Your task to perform on an android device: change the clock display to analog Image 0: 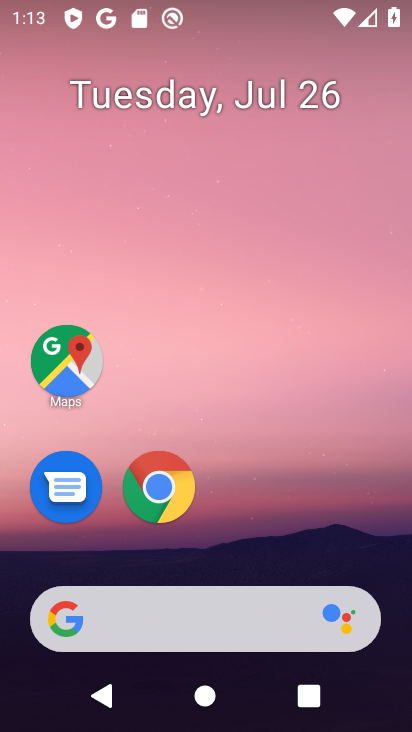
Step 0: drag from (173, 648) to (208, 133)
Your task to perform on an android device: change the clock display to analog Image 1: 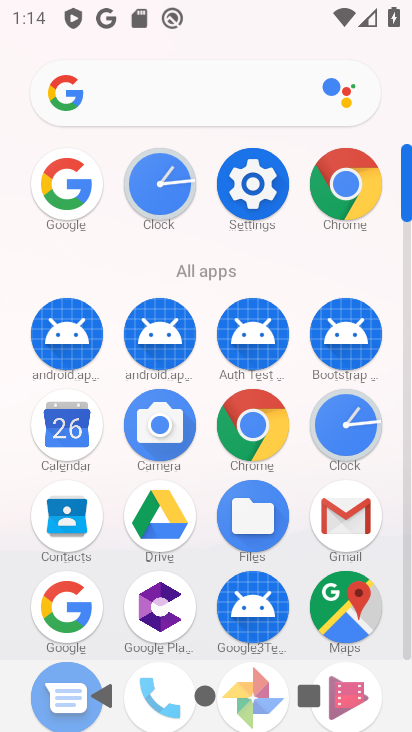
Step 1: click (341, 443)
Your task to perform on an android device: change the clock display to analog Image 2: 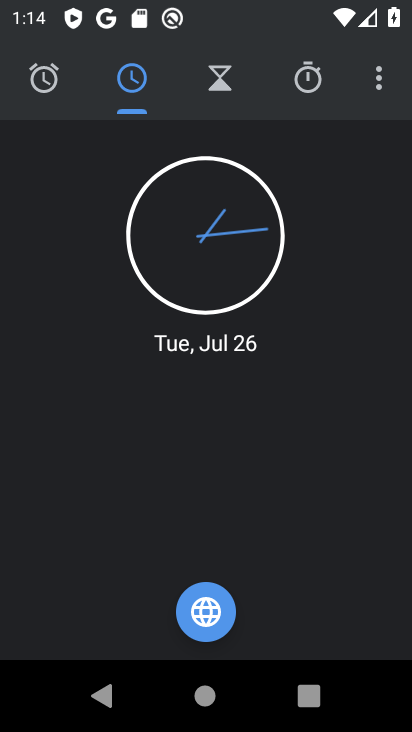
Step 2: click (378, 91)
Your task to perform on an android device: change the clock display to analog Image 3: 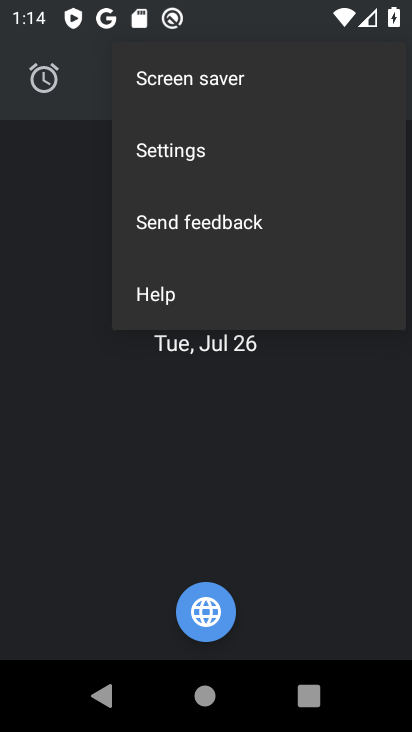
Step 3: click (198, 164)
Your task to perform on an android device: change the clock display to analog Image 4: 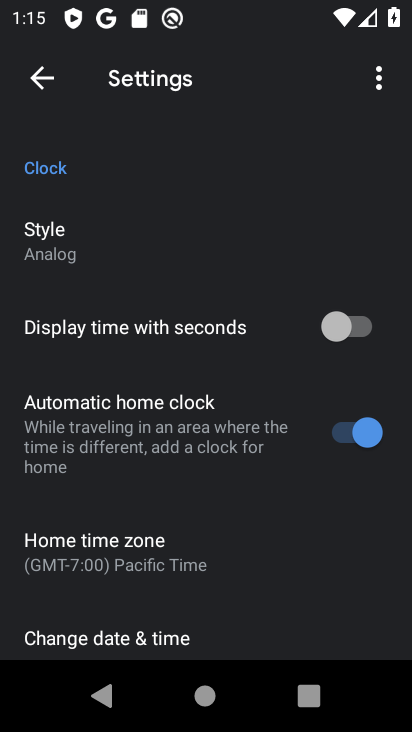
Step 4: task complete